Your task to perform on an android device: What is the recent news? Image 0: 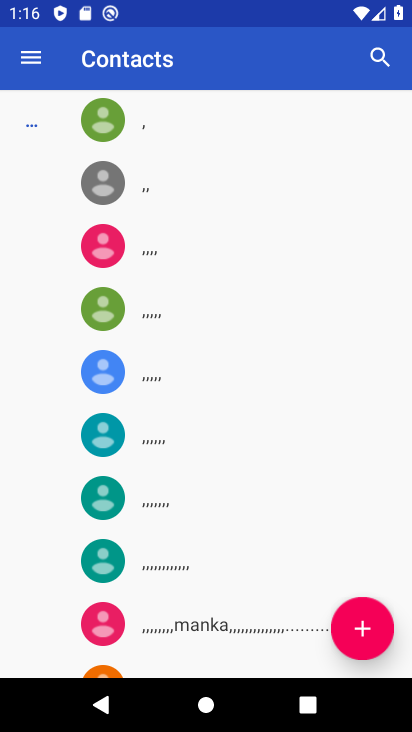
Step 0: press home button
Your task to perform on an android device: What is the recent news? Image 1: 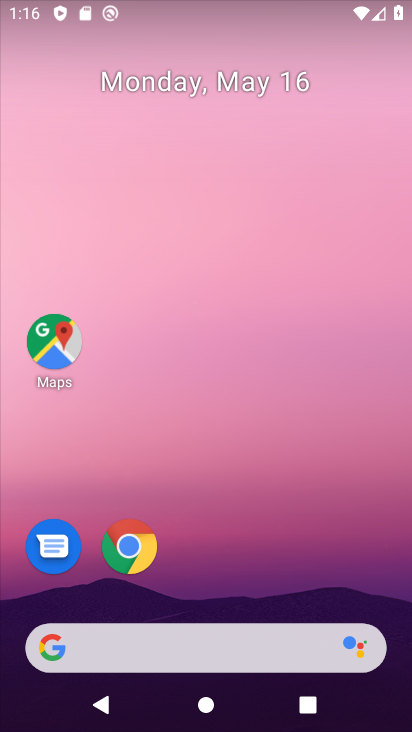
Step 1: click (124, 543)
Your task to perform on an android device: What is the recent news? Image 2: 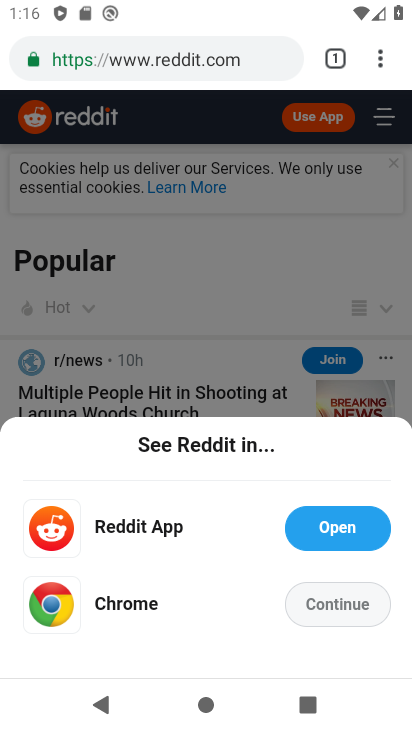
Step 2: click (150, 56)
Your task to perform on an android device: What is the recent news? Image 3: 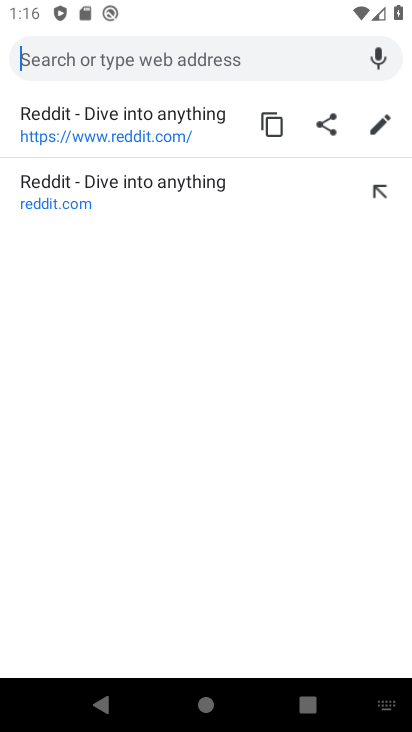
Step 3: type "recent news"
Your task to perform on an android device: What is the recent news? Image 4: 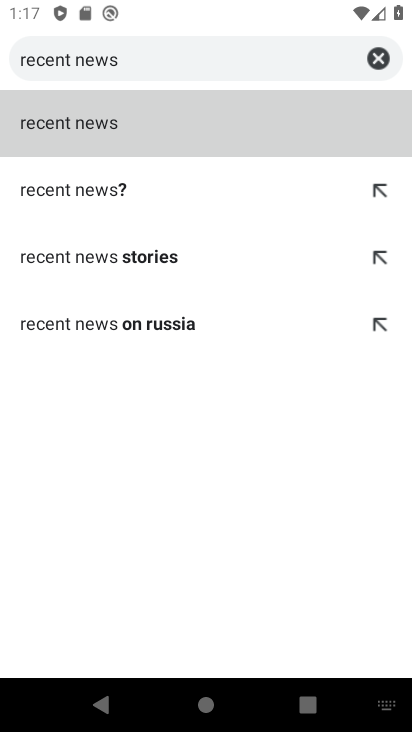
Step 4: click (156, 135)
Your task to perform on an android device: What is the recent news? Image 5: 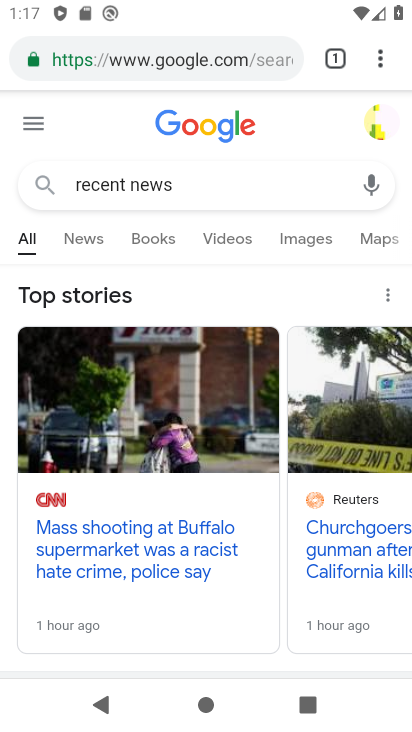
Step 5: task complete